Your task to perform on an android device: Open wifi settings Image 0: 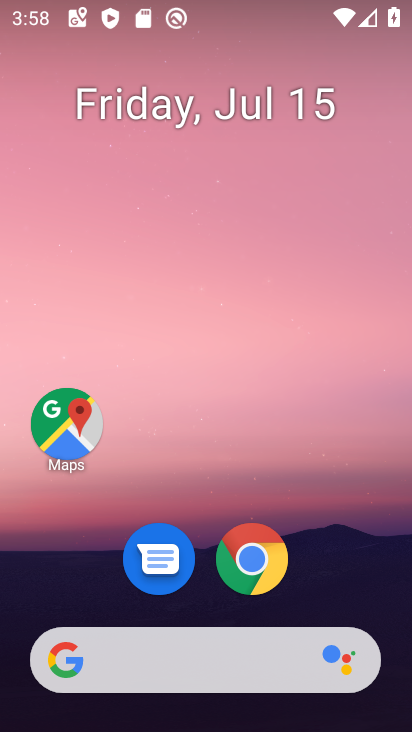
Step 0: drag from (90, 39) to (202, 636)
Your task to perform on an android device: Open wifi settings Image 1: 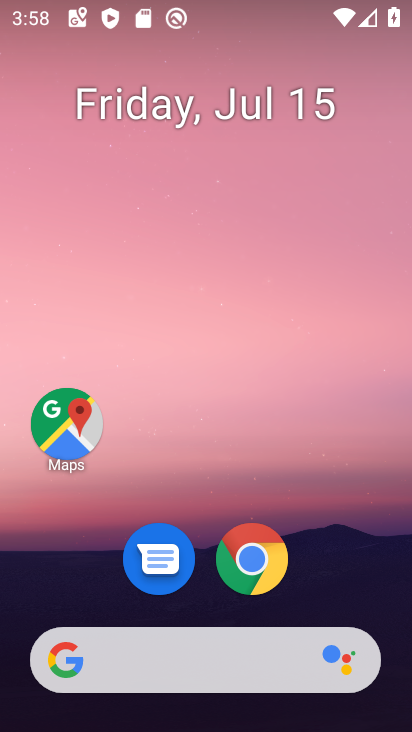
Step 1: drag from (58, 73) to (128, 569)
Your task to perform on an android device: Open wifi settings Image 2: 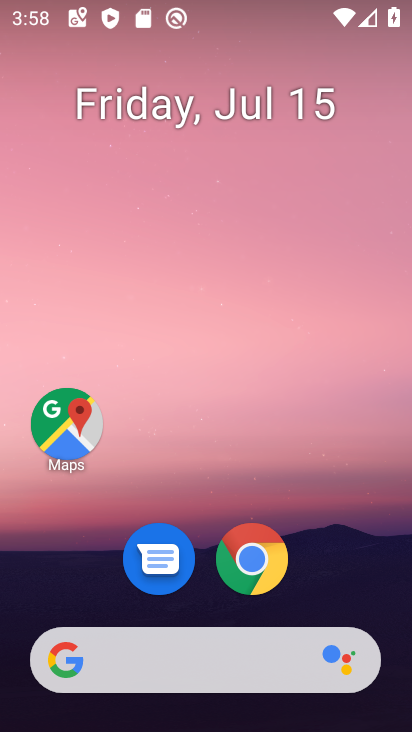
Step 2: drag from (191, 13) to (190, 614)
Your task to perform on an android device: Open wifi settings Image 3: 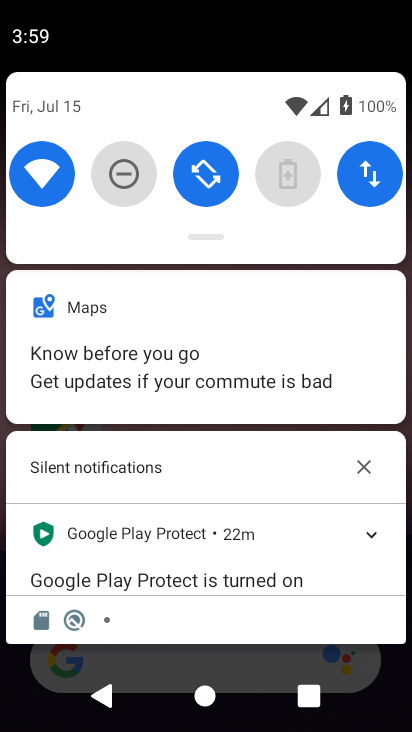
Step 3: click (41, 175)
Your task to perform on an android device: Open wifi settings Image 4: 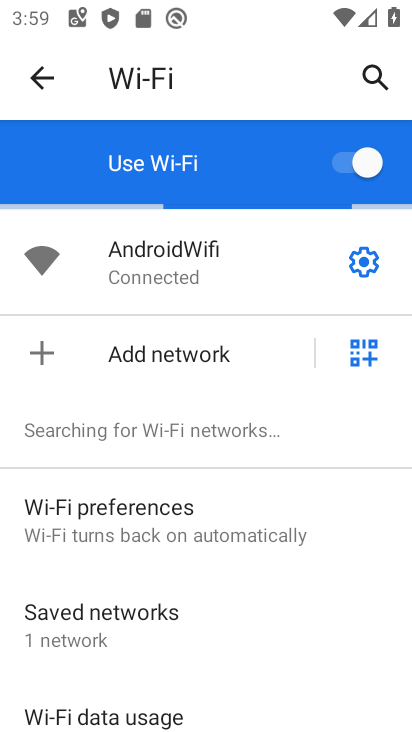
Step 4: task complete